Your task to perform on an android device: turn off notifications in google photos Image 0: 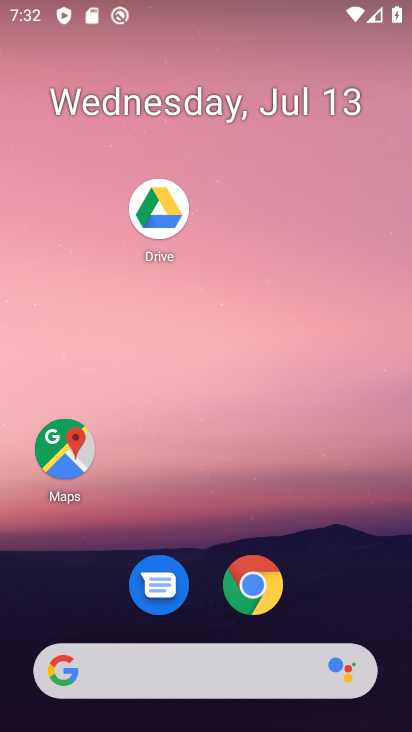
Step 0: drag from (210, 665) to (278, 363)
Your task to perform on an android device: turn off notifications in google photos Image 1: 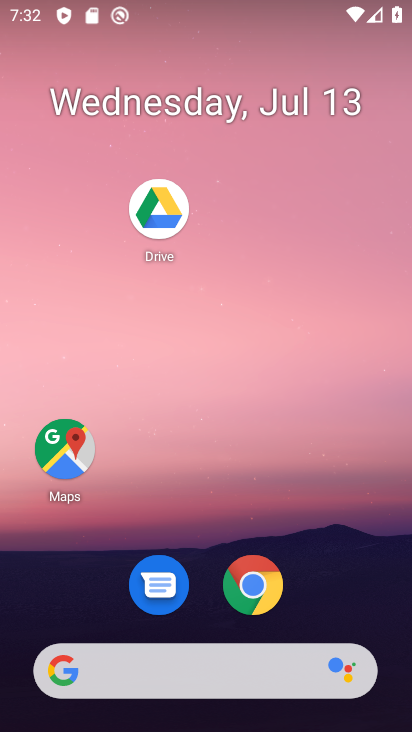
Step 1: drag from (223, 637) to (329, 100)
Your task to perform on an android device: turn off notifications in google photos Image 2: 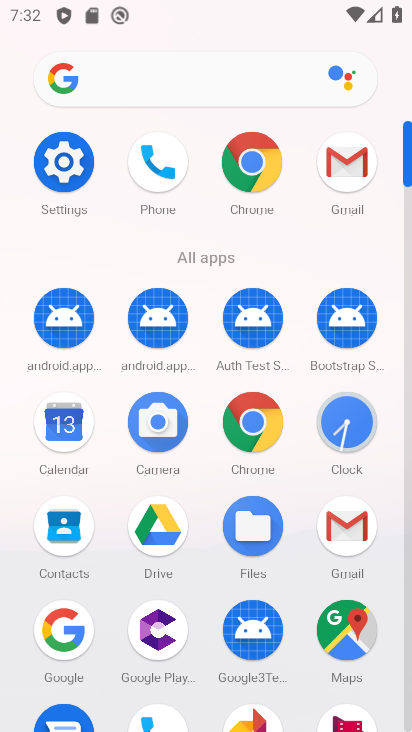
Step 2: drag from (214, 620) to (295, 177)
Your task to perform on an android device: turn off notifications in google photos Image 3: 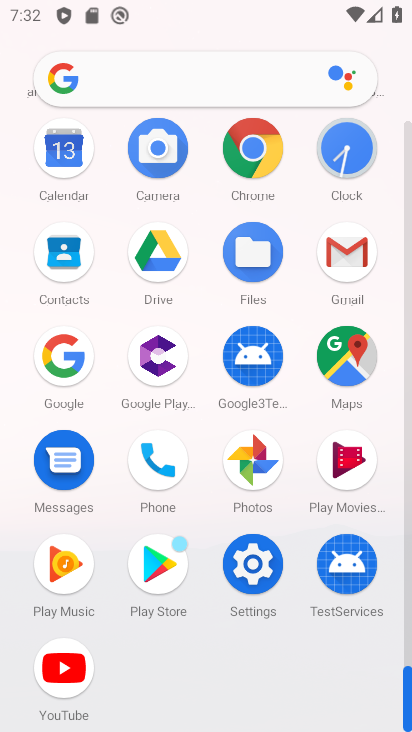
Step 3: click (249, 459)
Your task to perform on an android device: turn off notifications in google photos Image 4: 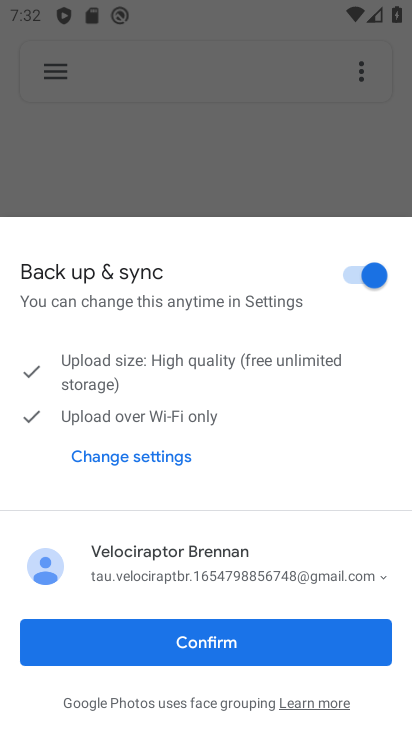
Step 4: click (224, 641)
Your task to perform on an android device: turn off notifications in google photos Image 5: 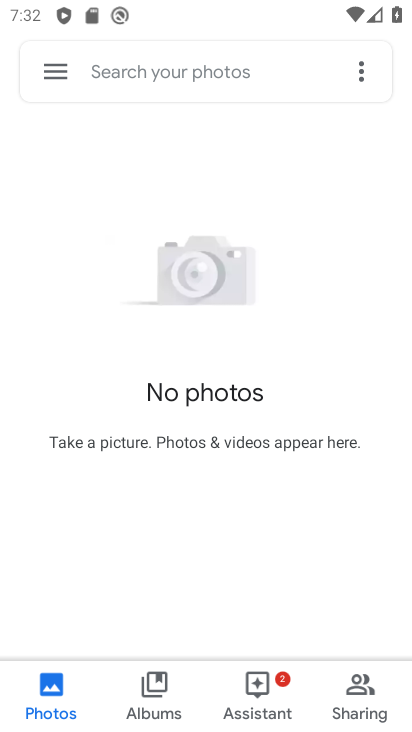
Step 5: click (48, 72)
Your task to perform on an android device: turn off notifications in google photos Image 6: 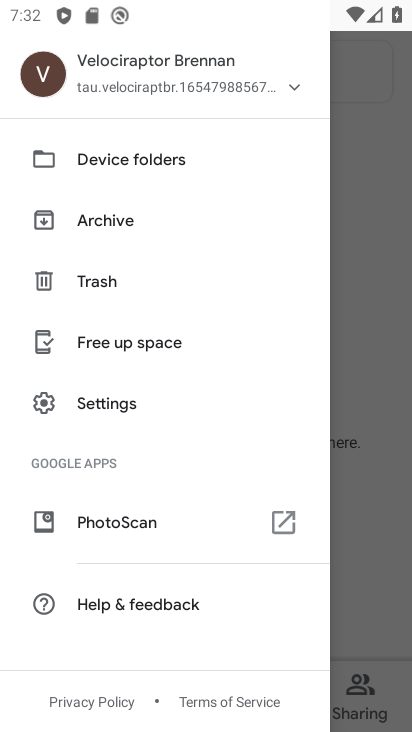
Step 6: click (118, 403)
Your task to perform on an android device: turn off notifications in google photos Image 7: 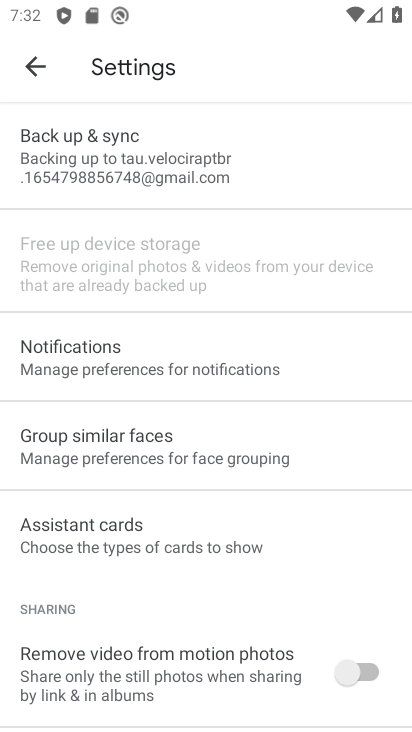
Step 7: click (214, 350)
Your task to perform on an android device: turn off notifications in google photos Image 8: 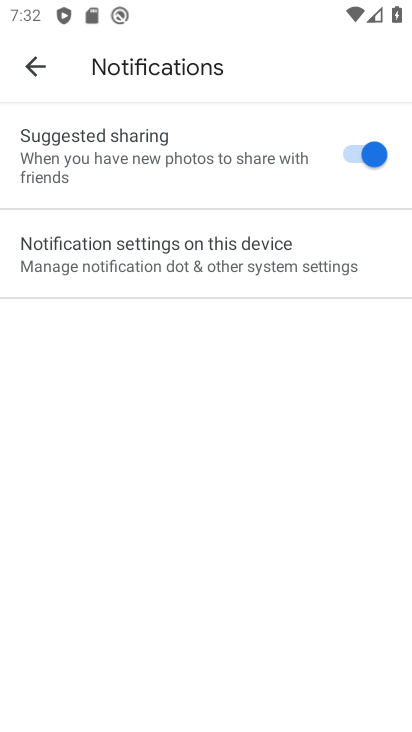
Step 8: click (180, 257)
Your task to perform on an android device: turn off notifications in google photos Image 9: 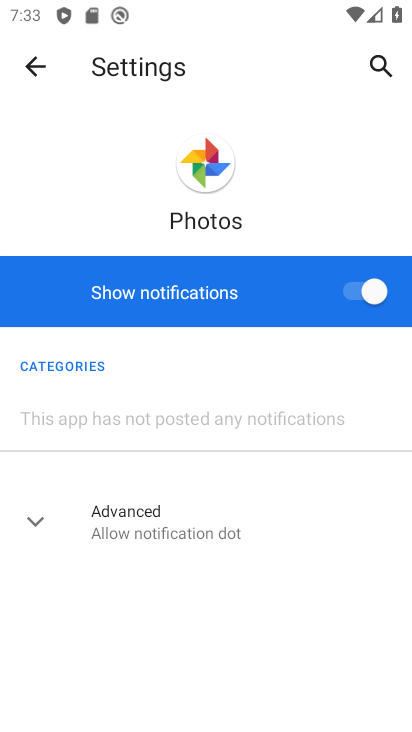
Step 9: click (350, 291)
Your task to perform on an android device: turn off notifications in google photos Image 10: 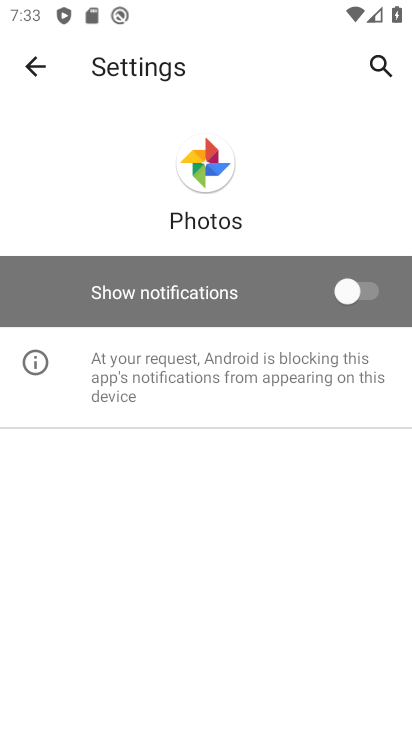
Step 10: task complete